Your task to perform on an android device: toggle location history Image 0: 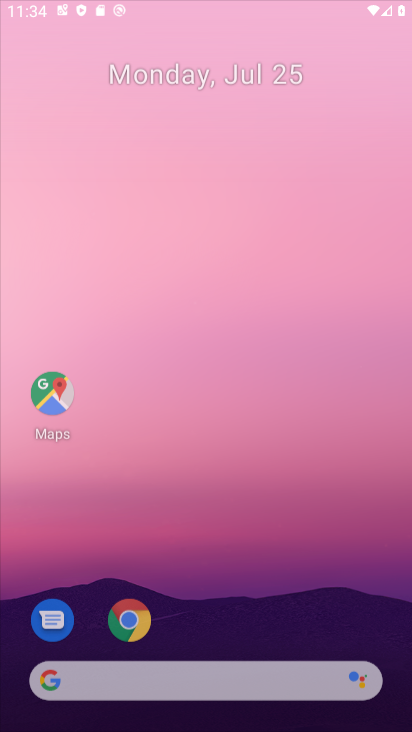
Step 0: press home button
Your task to perform on an android device: toggle location history Image 1: 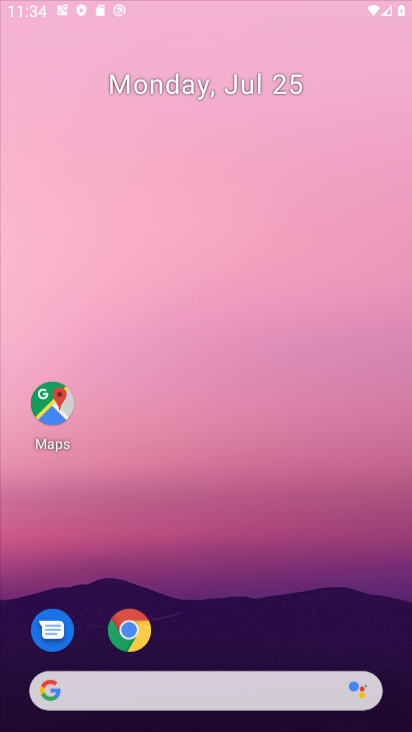
Step 1: drag from (357, 584) to (356, 94)
Your task to perform on an android device: toggle location history Image 2: 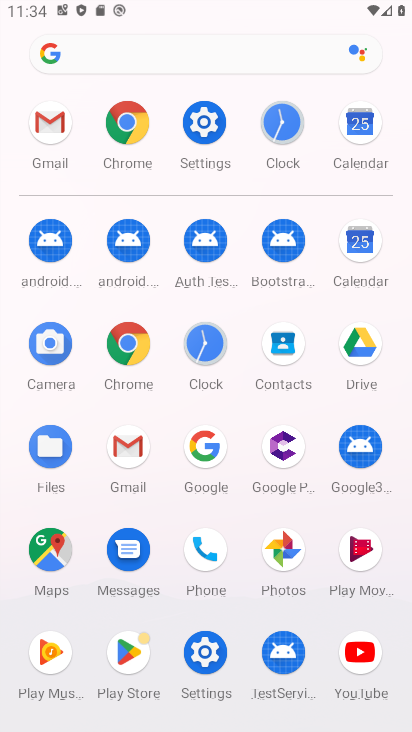
Step 2: click (219, 129)
Your task to perform on an android device: toggle location history Image 3: 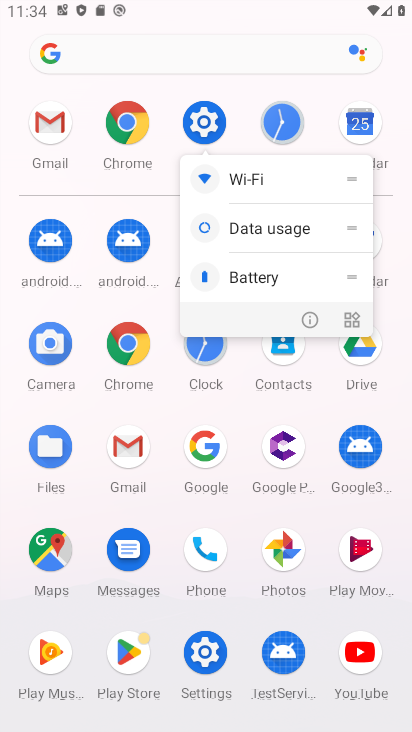
Step 3: click (219, 129)
Your task to perform on an android device: toggle location history Image 4: 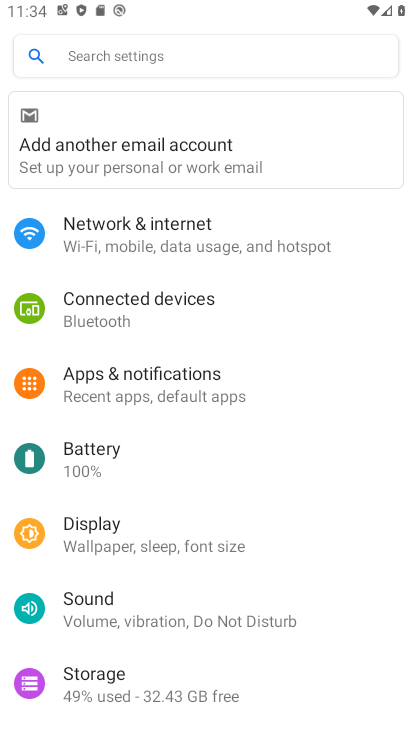
Step 4: drag from (347, 476) to (349, 381)
Your task to perform on an android device: toggle location history Image 5: 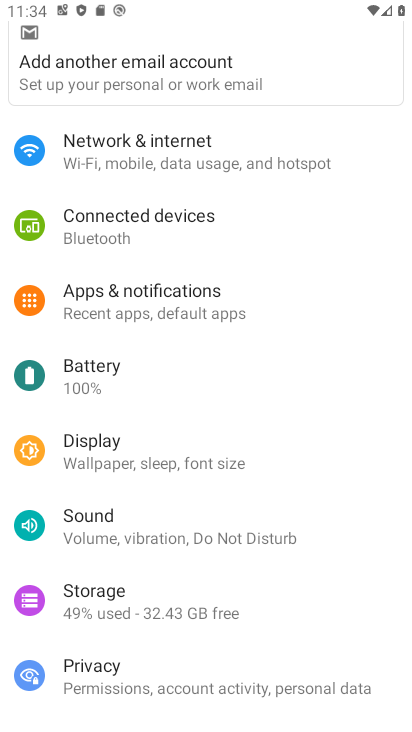
Step 5: drag from (339, 512) to (347, 409)
Your task to perform on an android device: toggle location history Image 6: 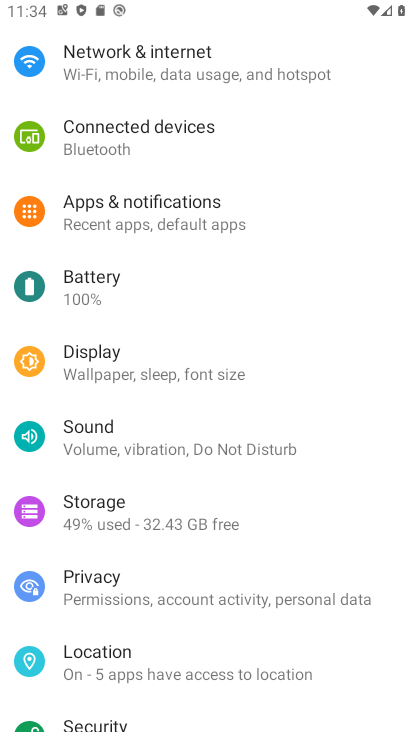
Step 6: drag from (342, 536) to (344, 442)
Your task to perform on an android device: toggle location history Image 7: 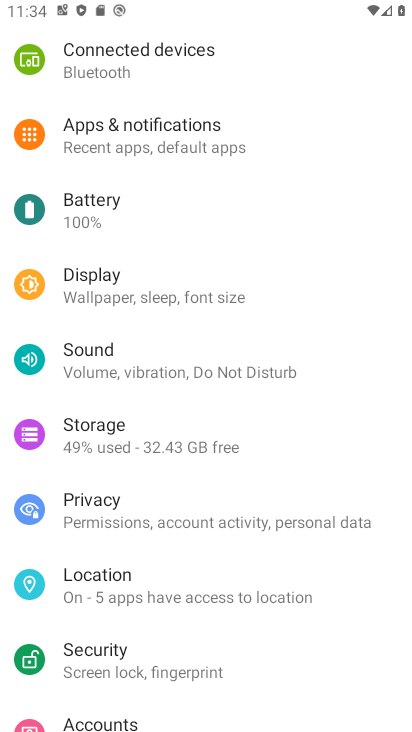
Step 7: drag from (345, 565) to (352, 429)
Your task to perform on an android device: toggle location history Image 8: 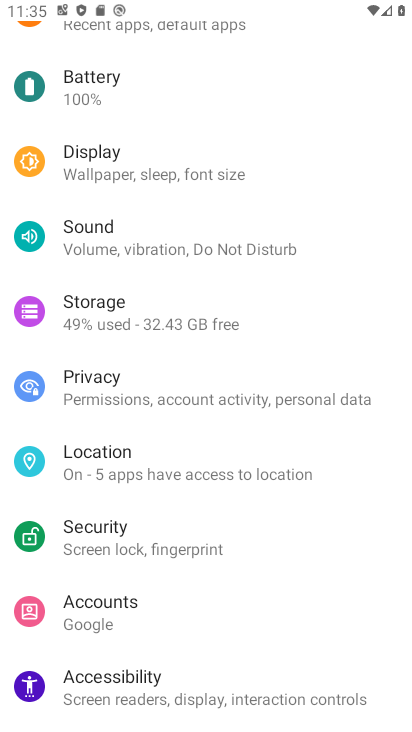
Step 8: drag from (364, 565) to (364, 492)
Your task to perform on an android device: toggle location history Image 9: 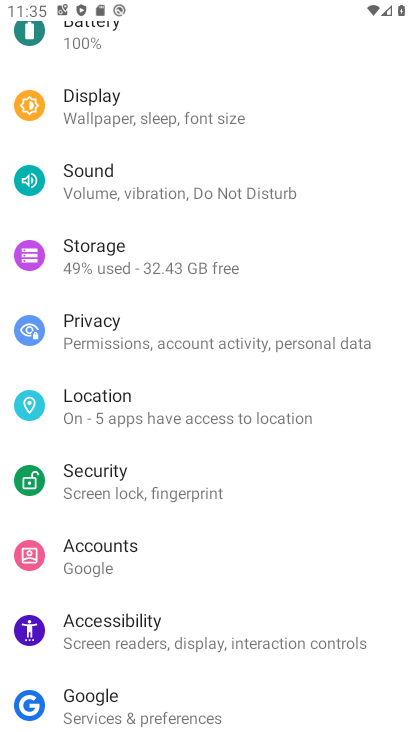
Step 9: drag from (343, 589) to (338, 359)
Your task to perform on an android device: toggle location history Image 10: 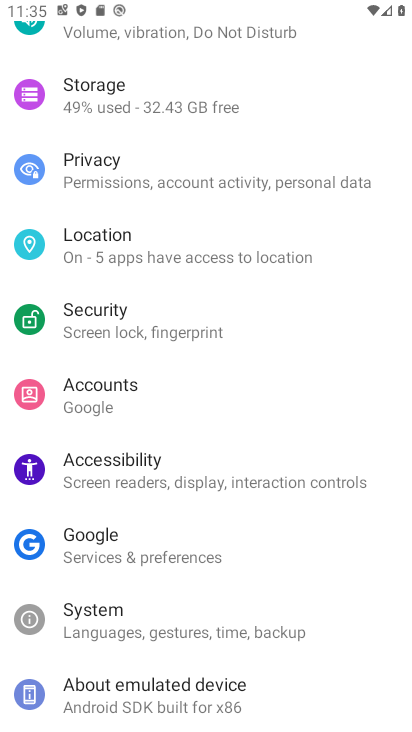
Step 10: click (273, 234)
Your task to perform on an android device: toggle location history Image 11: 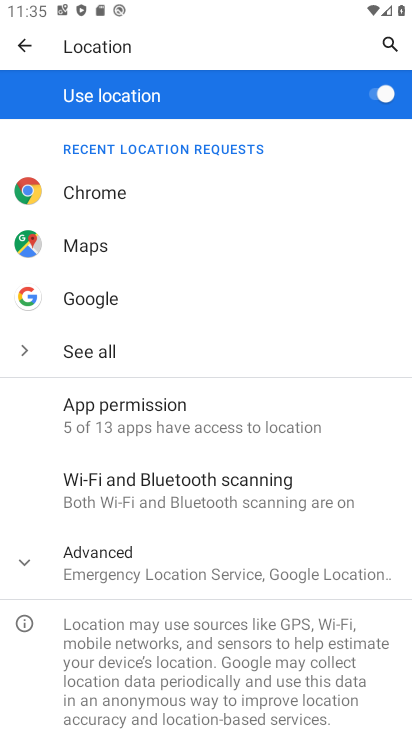
Step 11: click (267, 565)
Your task to perform on an android device: toggle location history Image 12: 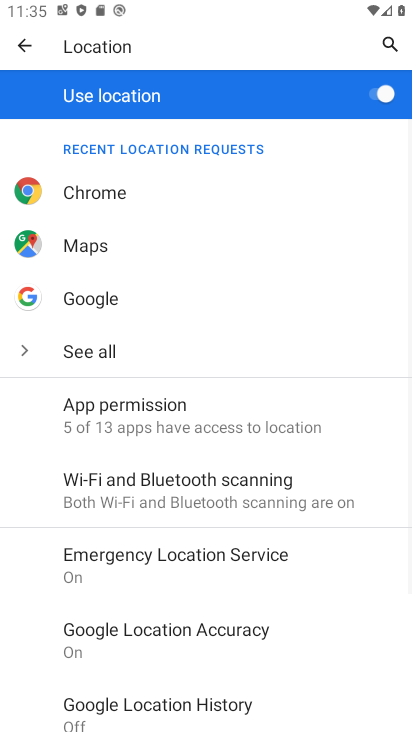
Step 12: drag from (305, 576) to (313, 433)
Your task to perform on an android device: toggle location history Image 13: 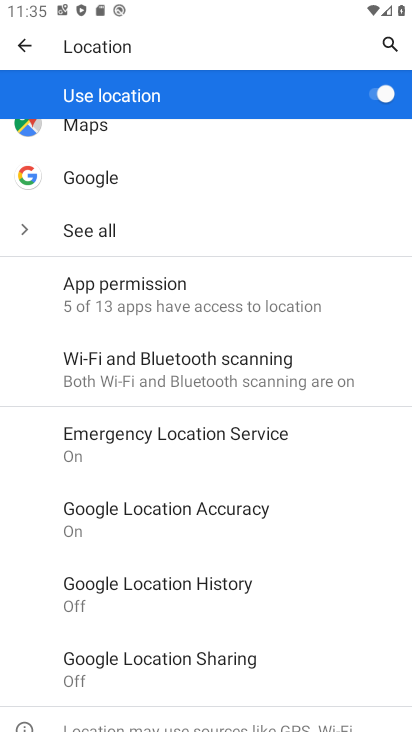
Step 13: click (293, 581)
Your task to perform on an android device: toggle location history Image 14: 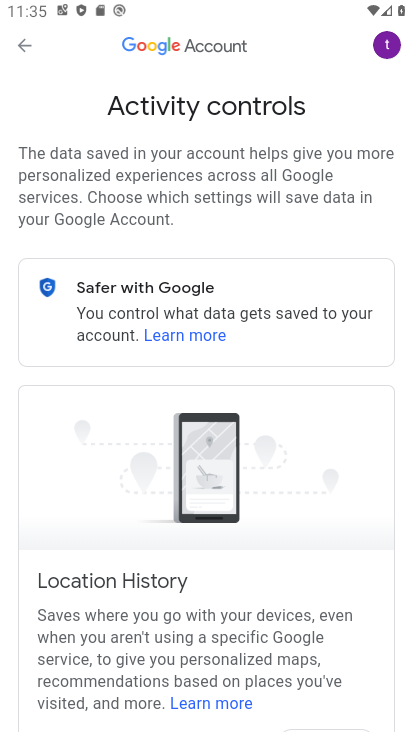
Step 14: drag from (276, 589) to (298, 474)
Your task to perform on an android device: toggle location history Image 15: 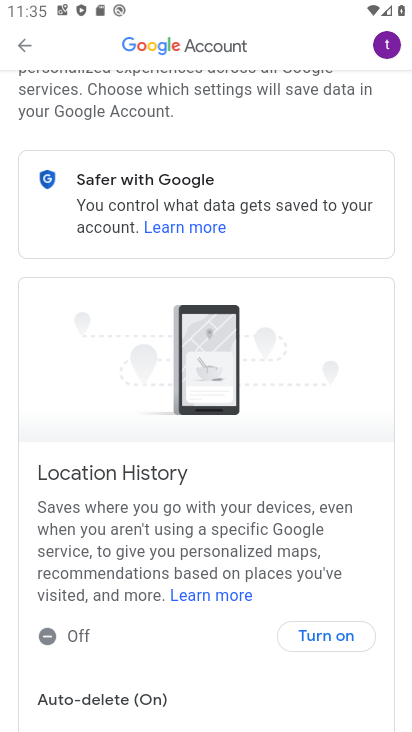
Step 15: click (319, 635)
Your task to perform on an android device: toggle location history Image 16: 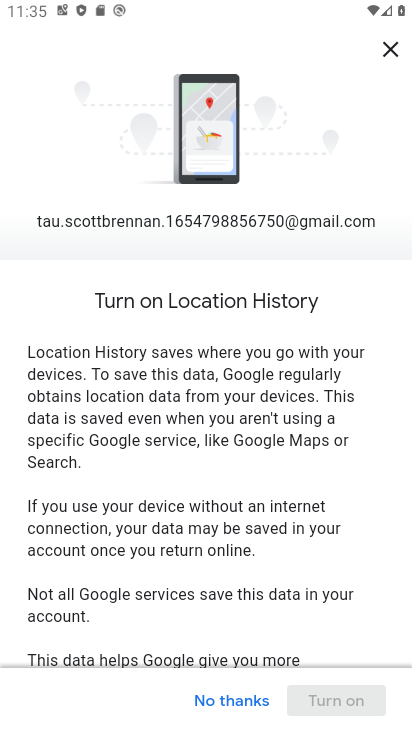
Step 16: drag from (287, 524) to (304, 426)
Your task to perform on an android device: toggle location history Image 17: 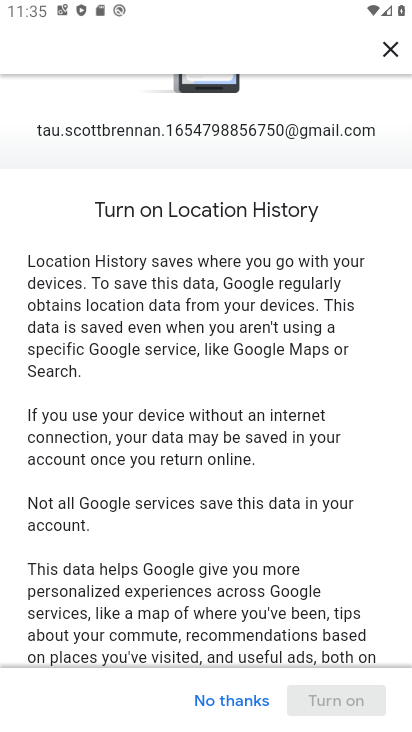
Step 17: drag from (296, 556) to (313, 425)
Your task to perform on an android device: toggle location history Image 18: 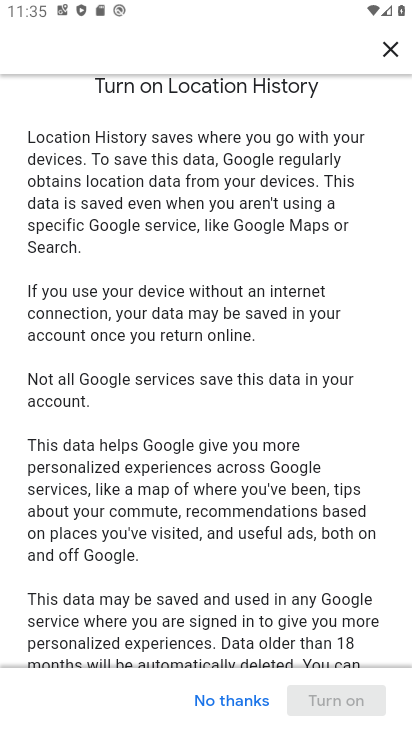
Step 18: drag from (275, 558) to (290, 426)
Your task to perform on an android device: toggle location history Image 19: 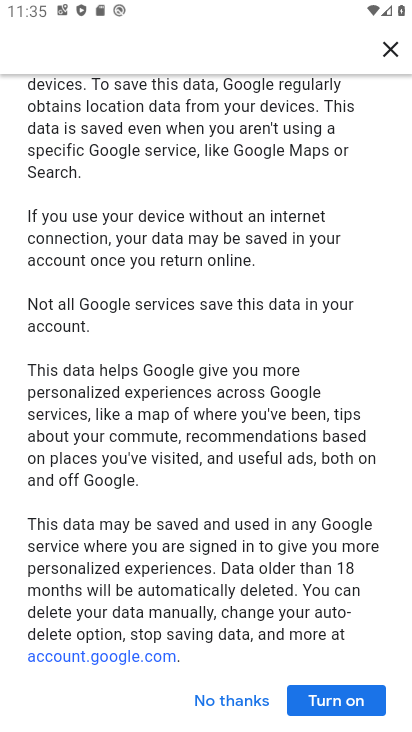
Step 19: click (336, 707)
Your task to perform on an android device: toggle location history Image 20: 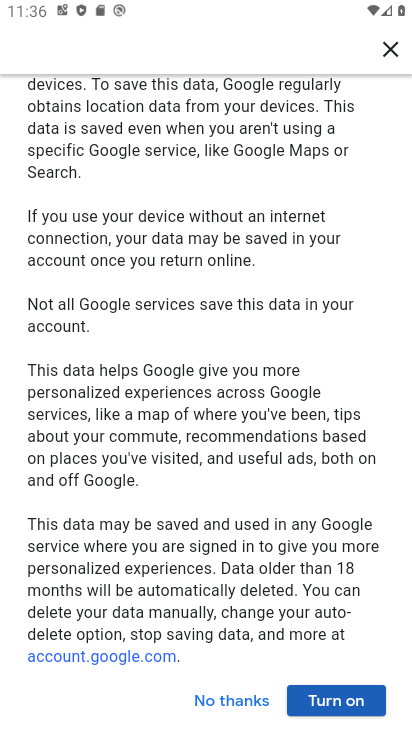
Step 20: click (330, 695)
Your task to perform on an android device: toggle location history Image 21: 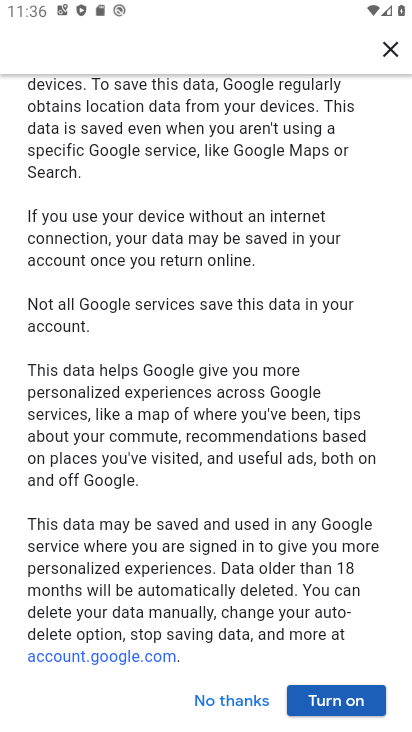
Step 21: click (325, 705)
Your task to perform on an android device: toggle location history Image 22: 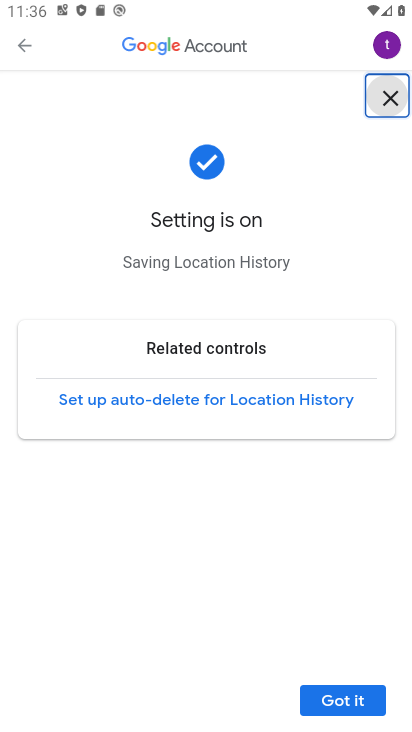
Step 22: task complete